Your task to perform on an android device: Go to eBay Image 0: 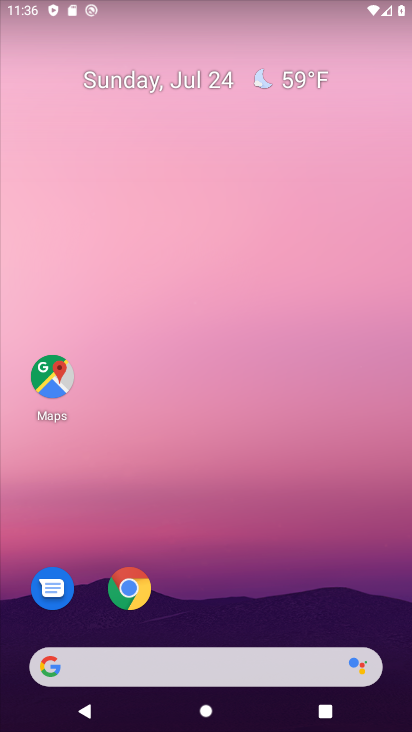
Step 0: drag from (345, 611) to (138, 7)
Your task to perform on an android device: Go to eBay Image 1: 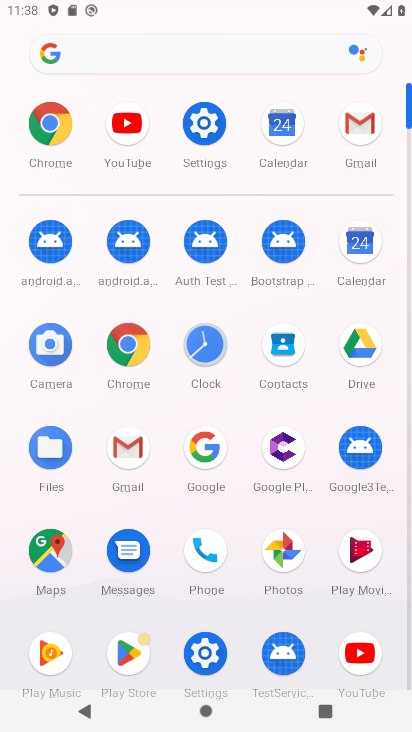
Step 1: click (215, 454)
Your task to perform on an android device: Go to eBay Image 2: 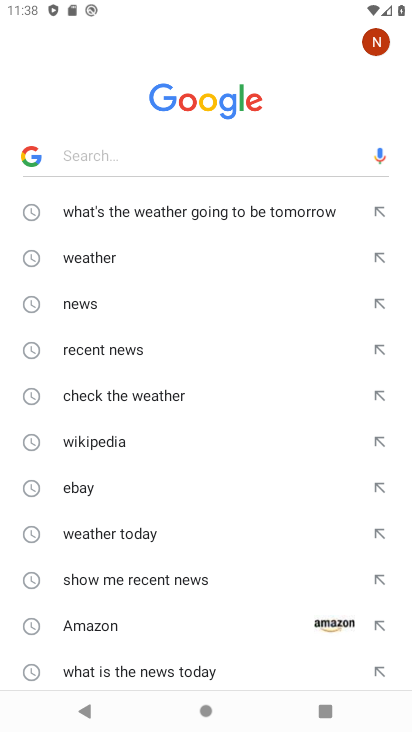
Step 2: click (95, 485)
Your task to perform on an android device: Go to eBay Image 3: 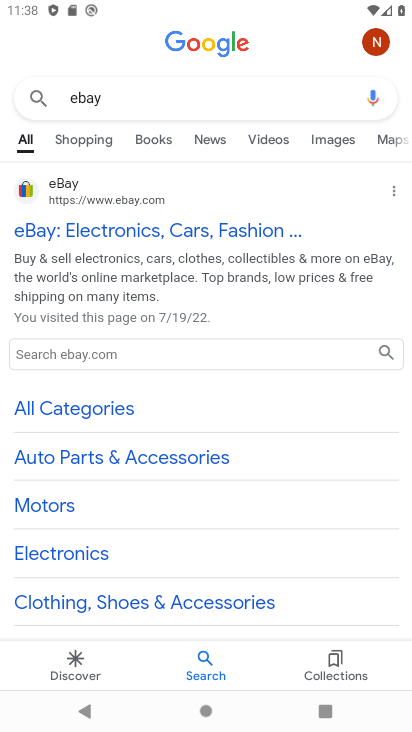
Step 3: task complete